Your task to perform on an android device: check the backup settings in the google photos Image 0: 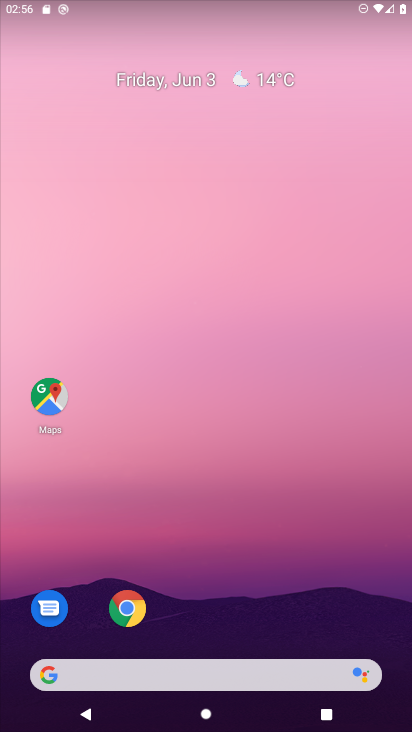
Step 0: drag from (272, 577) to (209, 169)
Your task to perform on an android device: check the backup settings in the google photos Image 1: 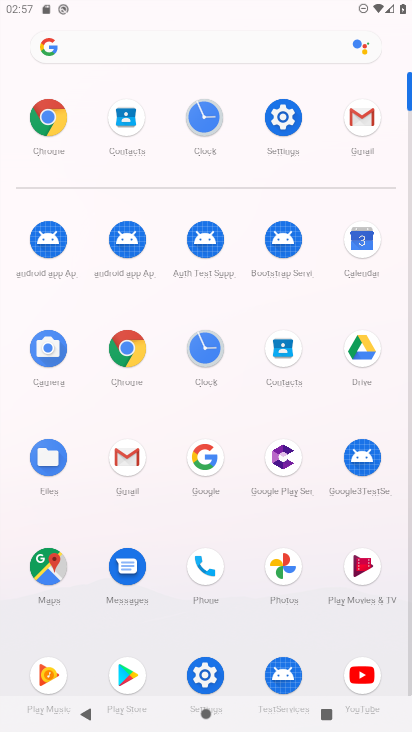
Step 1: click (281, 561)
Your task to perform on an android device: check the backup settings in the google photos Image 2: 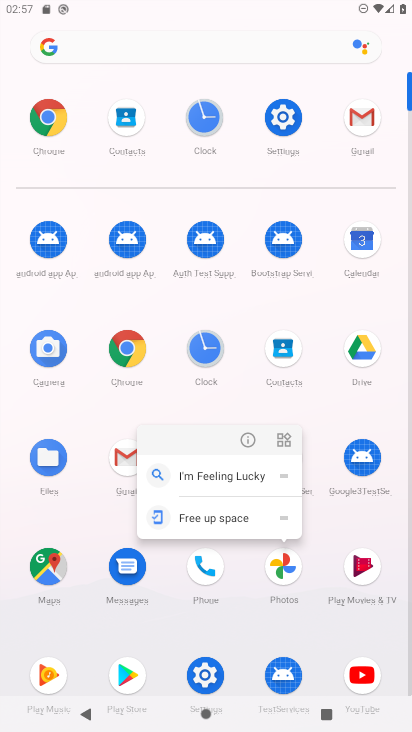
Step 2: click (284, 568)
Your task to perform on an android device: check the backup settings in the google photos Image 3: 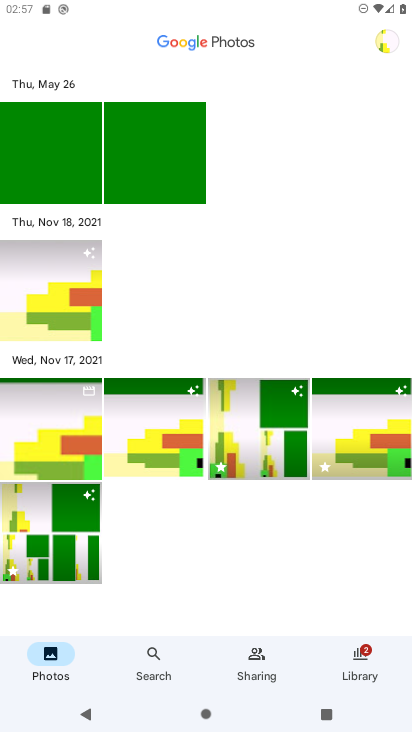
Step 3: click (387, 33)
Your task to perform on an android device: check the backup settings in the google photos Image 4: 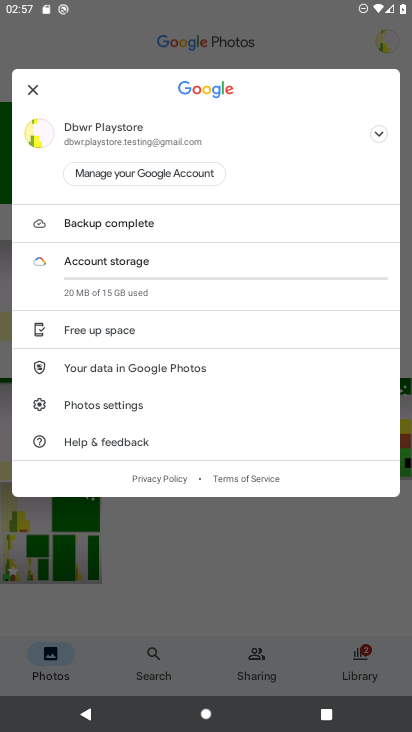
Step 4: click (123, 408)
Your task to perform on an android device: check the backup settings in the google photos Image 5: 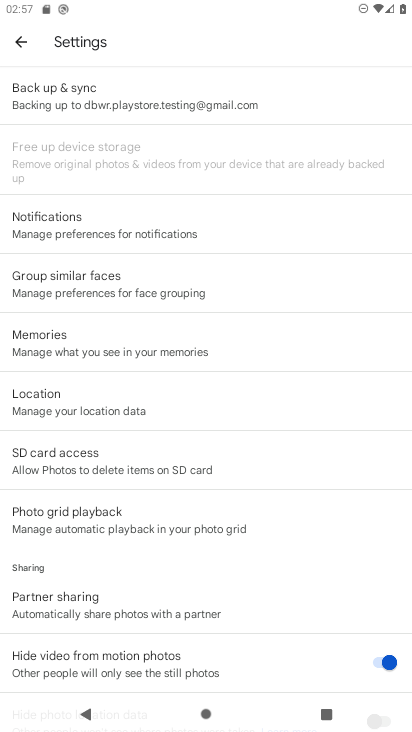
Step 5: click (156, 101)
Your task to perform on an android device: check the backup settings in the google photos Image 6: 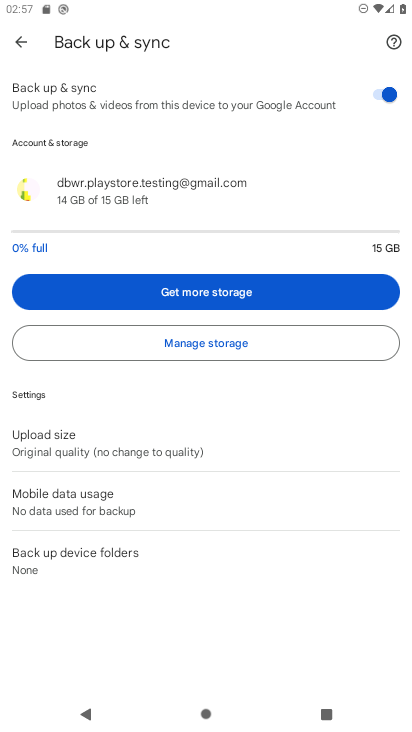
Step 6: task complete